Your task to perform on an android device: see creations saved in the google photos Image 0: 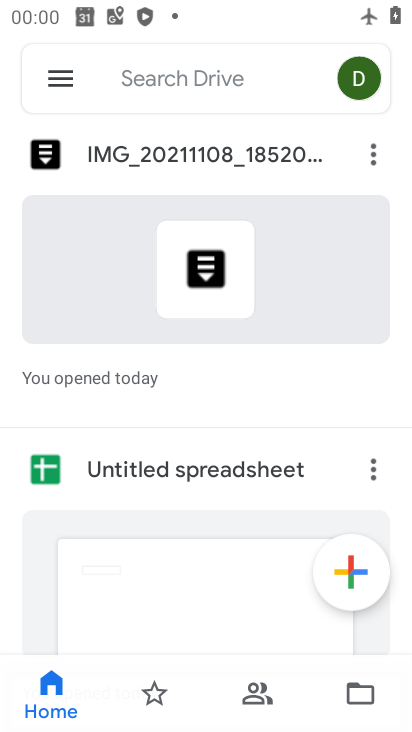
Step 0: press home button
Your task to perform on an android device: see creations saved in the google photos Image 1: 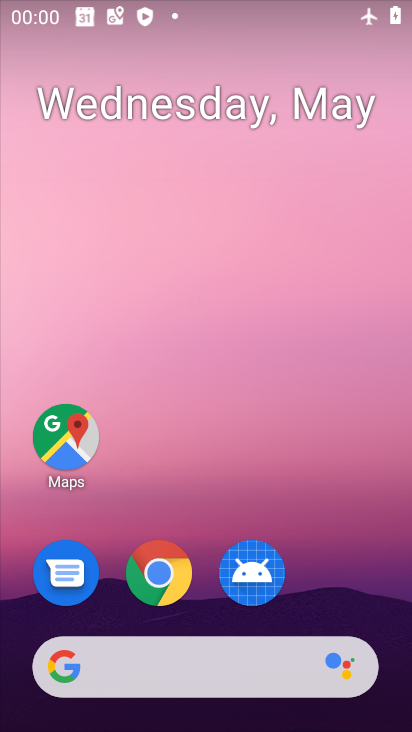
Step 1: drag from (335, 572) to (219, 139)
Your task to perform on an android device: see creations saved in the google photos Image 2: 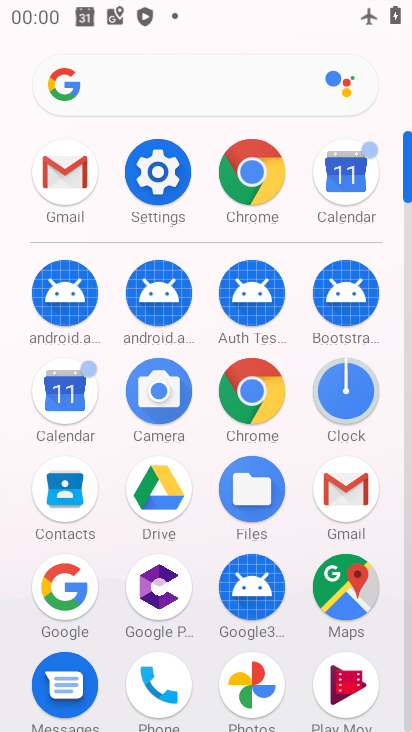
Step 2: click (245, 682)
Your task to perform on an android device: see creations saved in the google photos Image 3: 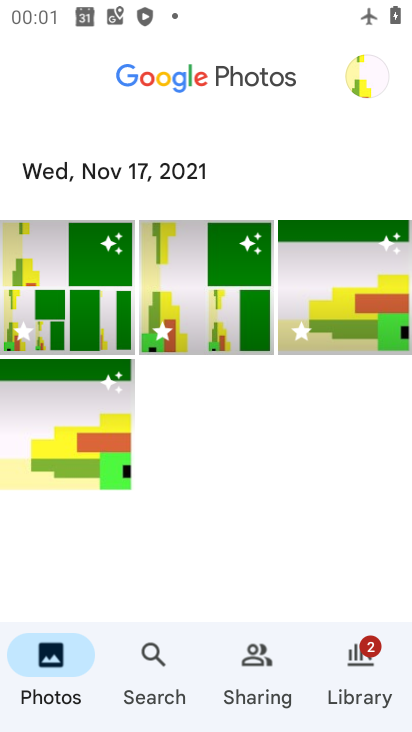
Step 3: click (144, 653)
Your task to perform on an android device: see creations saved in the google photos Image 4: 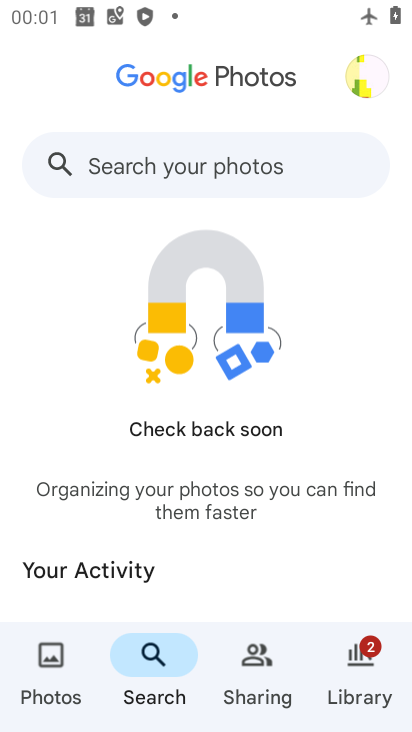
Step 4: click (132, 162)
Your task to perform on an android device: see creations saved in the google photos Image 5: 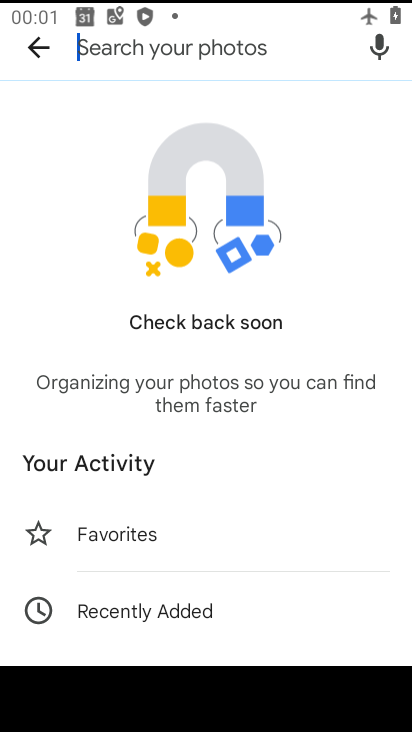
Step 5: type "creations"
Your task to perform on an android device: see creations saved in the google photos Image 6: 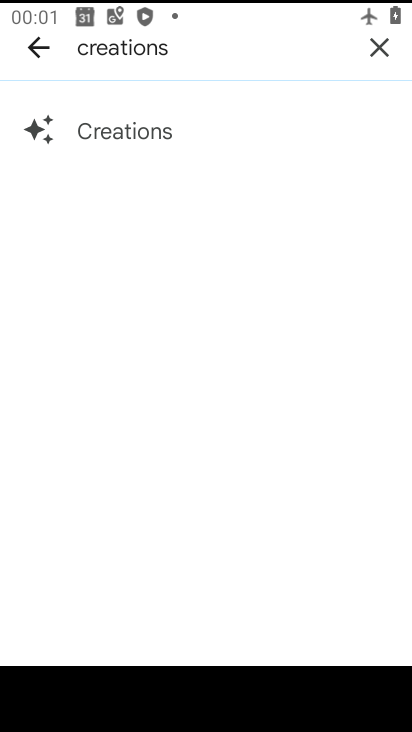
Step 6: click (140, 127)
Your task to perform on an android device: see creations saved in the google photos Image 7: 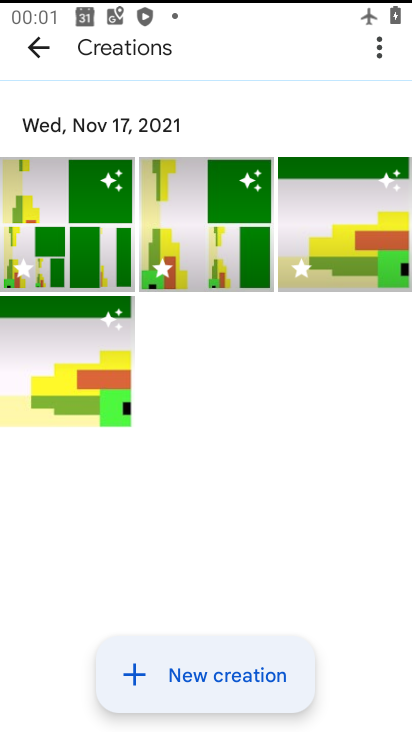
Step 7: task complete